Your task to perform on an android device: Go to network settings Image 0: 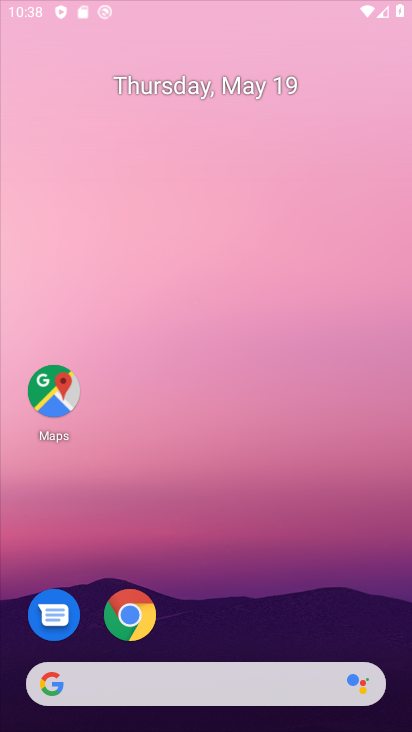
Step 0: drag from (243, 654) to (167, 33)
Your task to perform on an android device: Go to network settings Image 1: 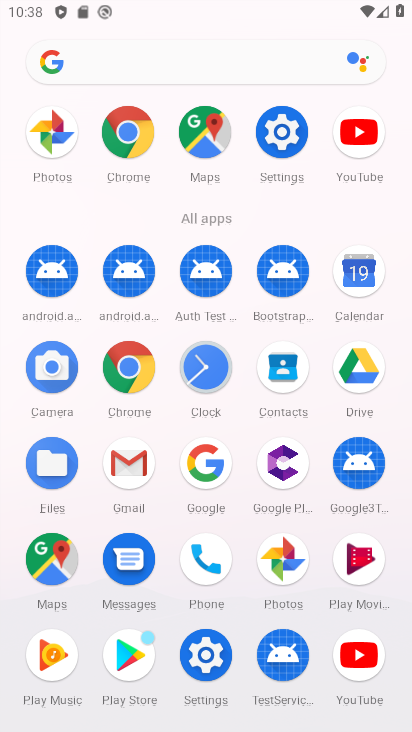
Step 1: click (274, 136)
Your task to perform on an android device: Go to network settings Image 2: 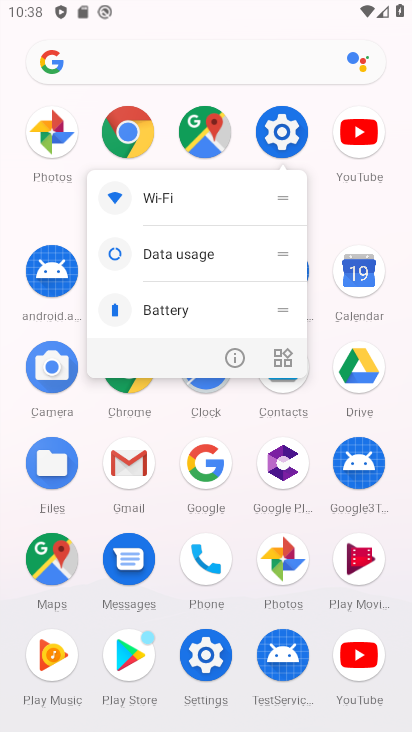
Step 2: click (291, 142)
Your task to perform on an android device: Go to network settings Image 3: 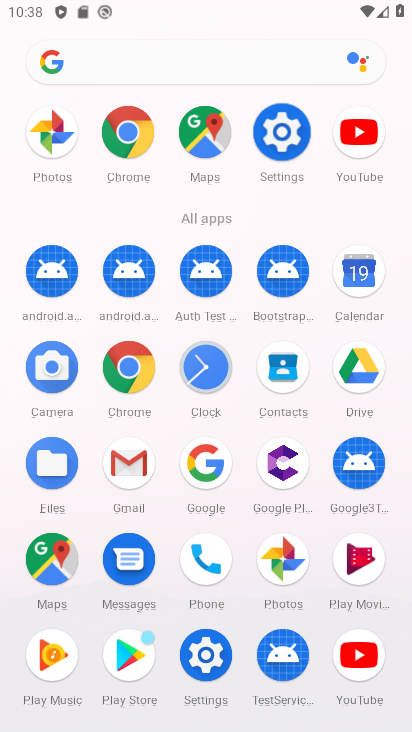
Step 3: click (291, 142)
Your task to perform on an android device: Go to network settings Image 4: 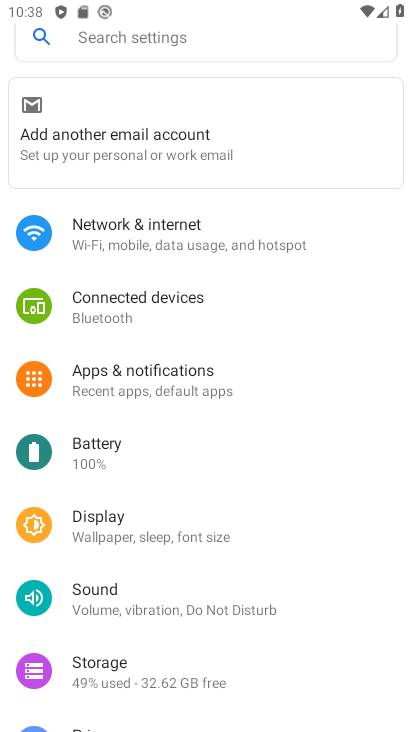
Step 4: click (150, 234)
Your task to perform on an android device: Go to network settings Image 5: 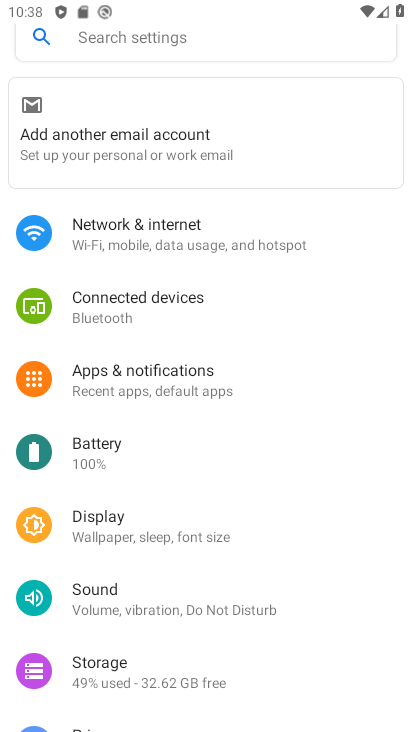
Step 5: click (150, 234)
Your task to perform on an android device: Go to network settings Image 6: 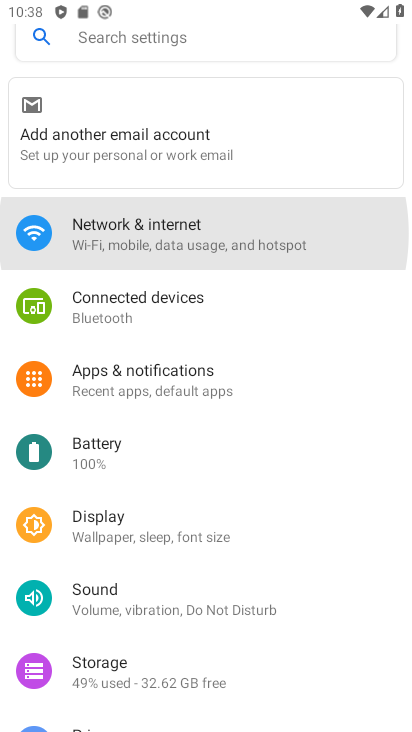
Step 6: click (150, 234)
Your task to perform on an android device: Go to network settings Image 7: 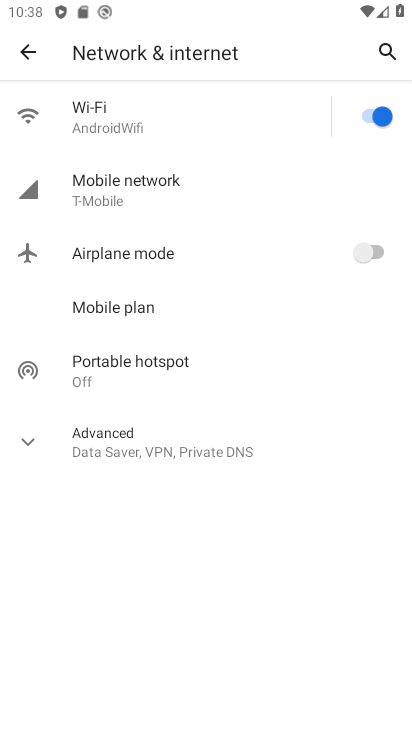
Step 7: task complete